Your task to perform on an android device: Check the weather Image 0: 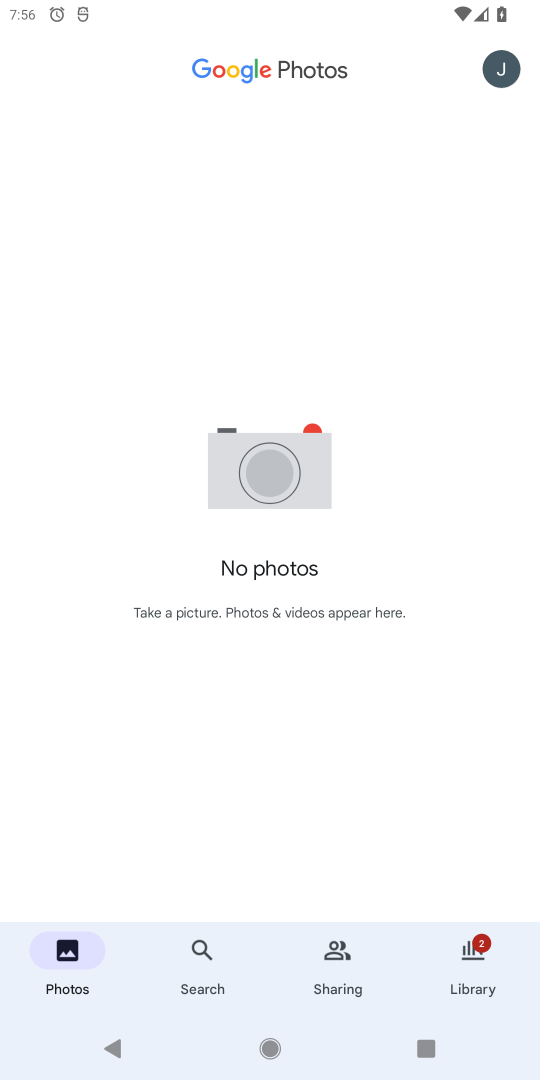
Step 0: press home button
Your task to perform on an android device: Check the weather Image 1: 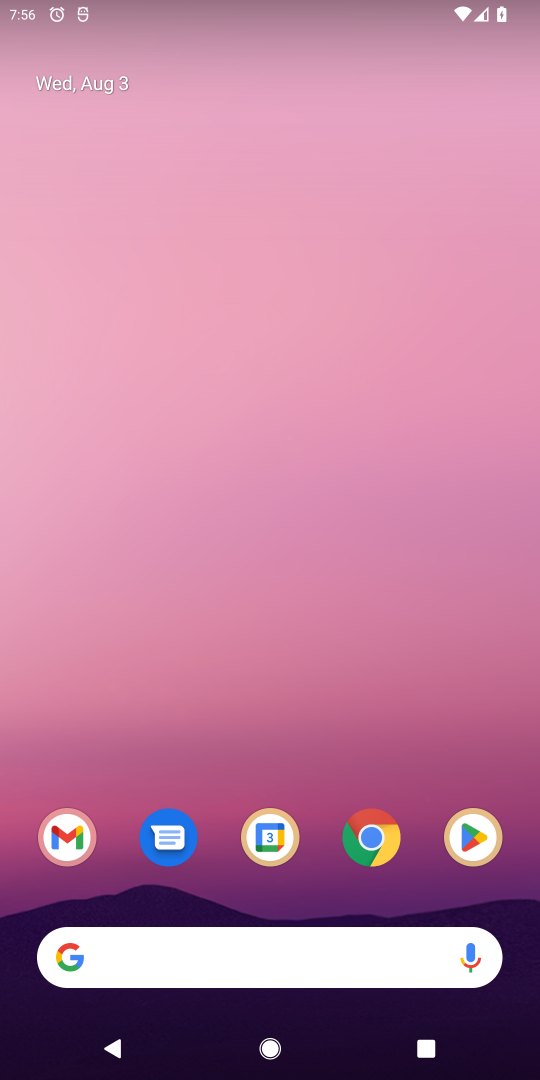
Step 1: click (76, 964)
Your task to perform on an android device: Check the weather Image 2: 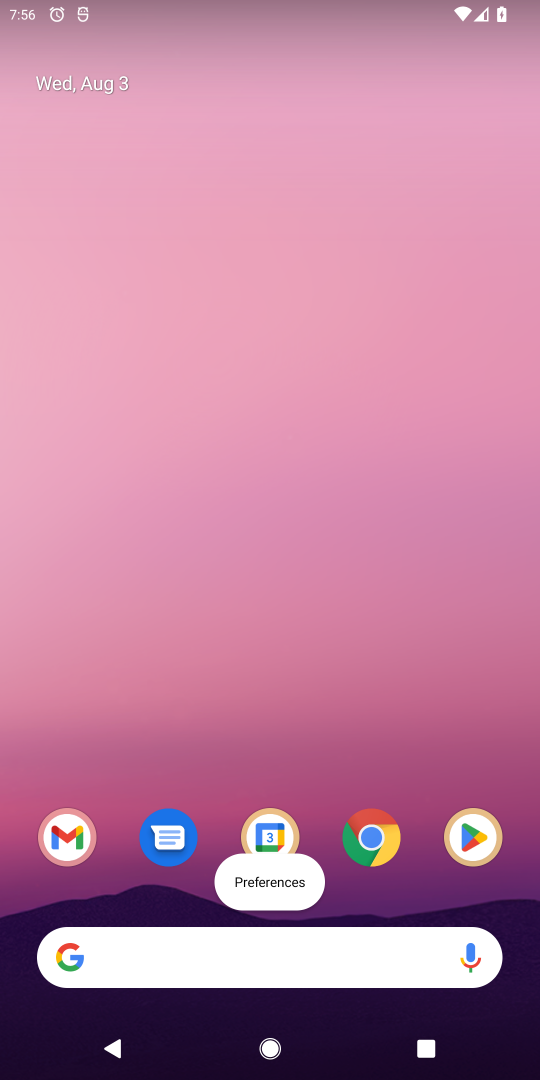
Step 2: click (67, 955)
Your task to perform on an android device: Check the weather Image 3: 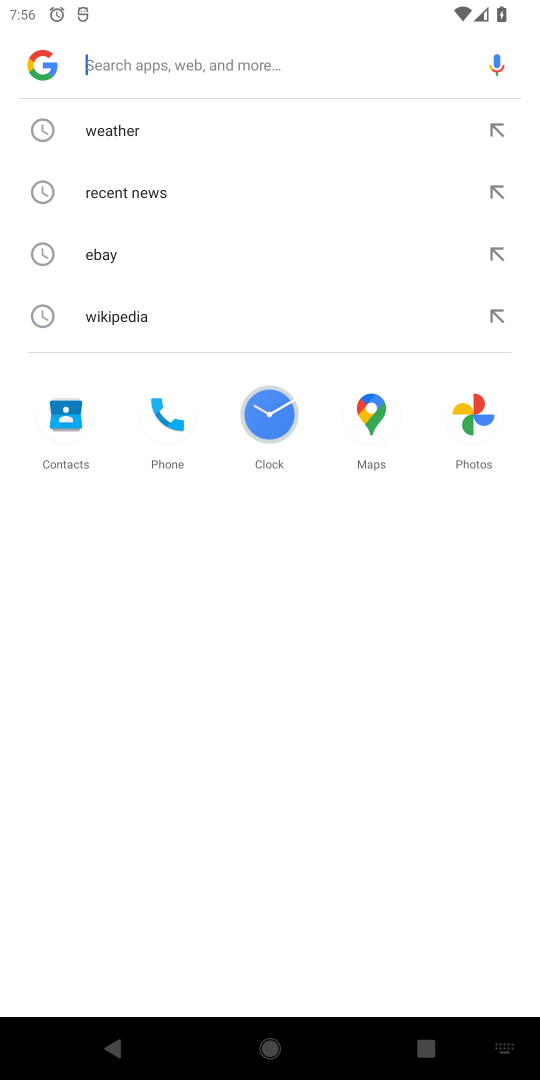
Step 3: click (119, 129)
Your task to perform on an android device: Check the weather Image 4: 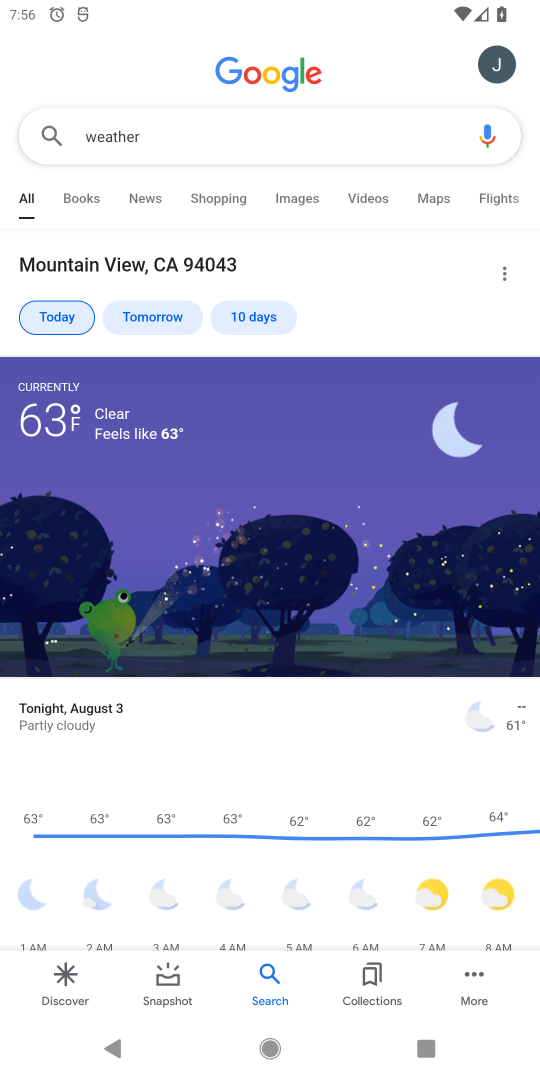
Step 4: task complete